Your task to perform on an android device: Open maps Image 0: 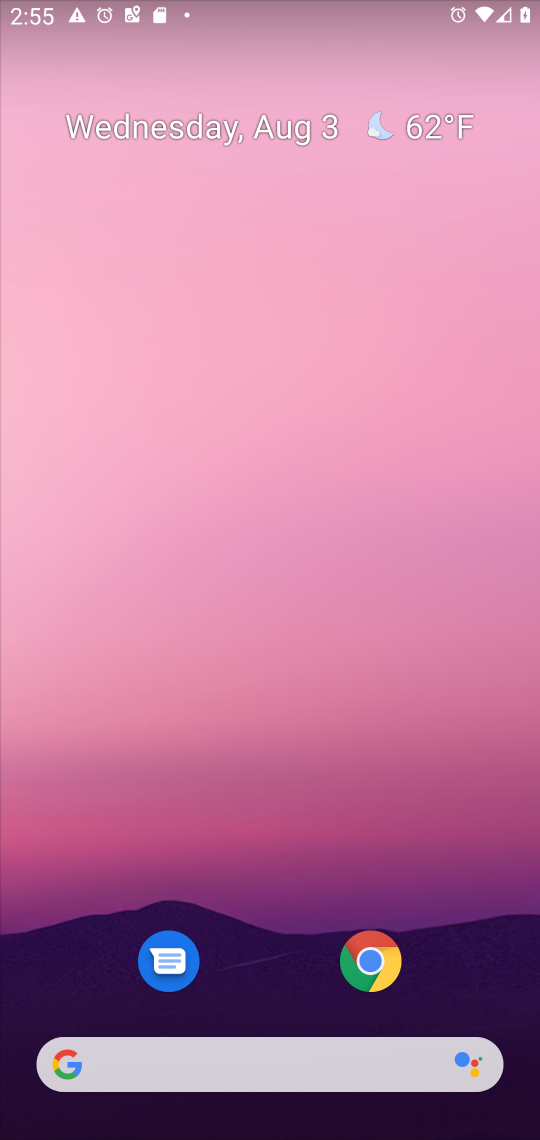
Step 0: drag from (277, 990) to (298, 81)
Your task to perform on an android device: Open maps Image 1: 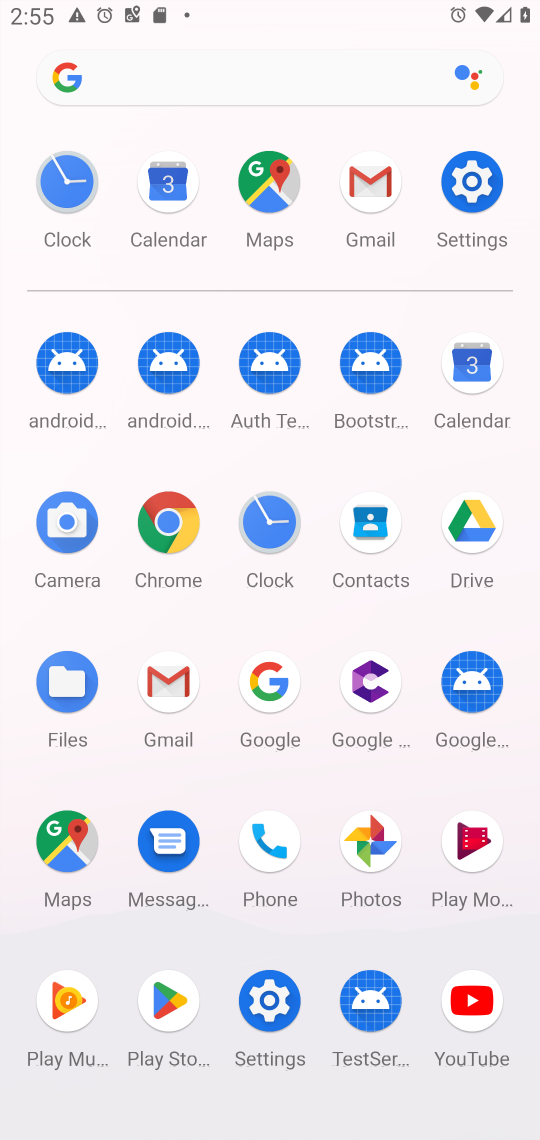
Step 1: click (272, 192)
Your task to perform on an android device: Open maps Image 2: 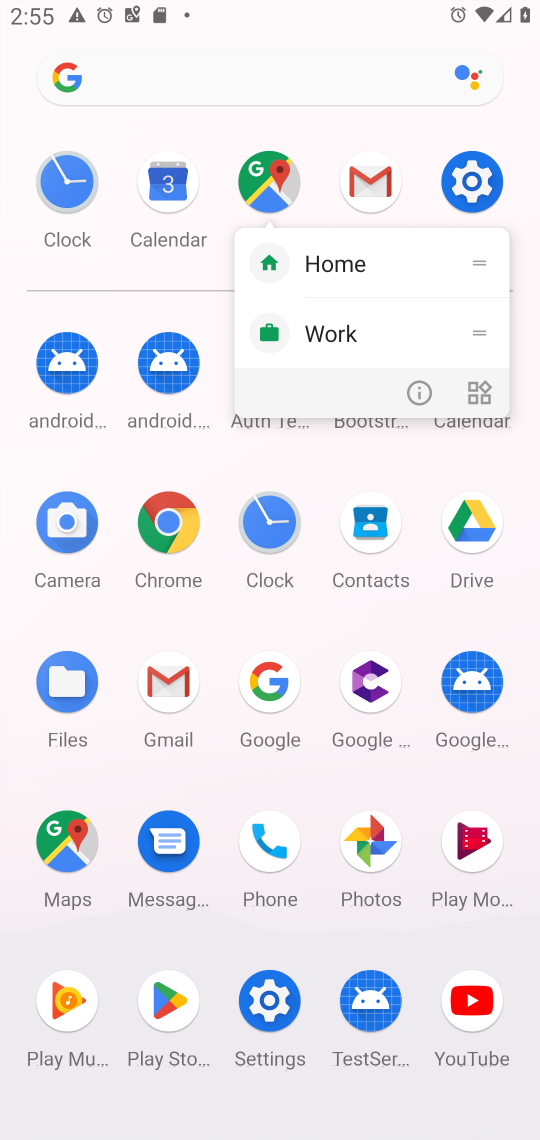
Step 2: click (272, 188)
Your task to perform on an android device: Open maps Image 3: 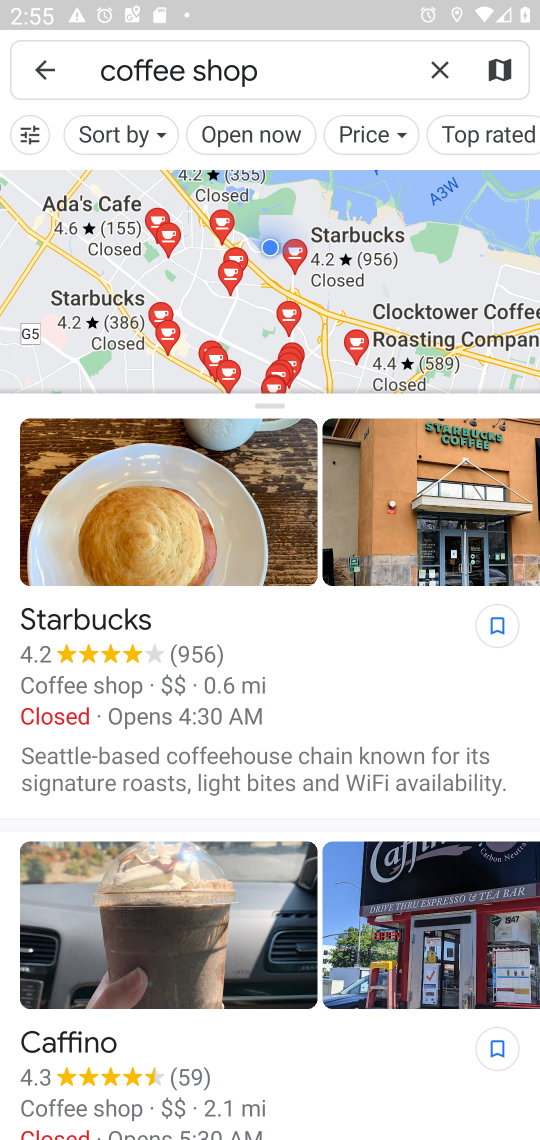
Step 3: task complete